Your task to perform on an android device: open sync settings in chrome Image 0: 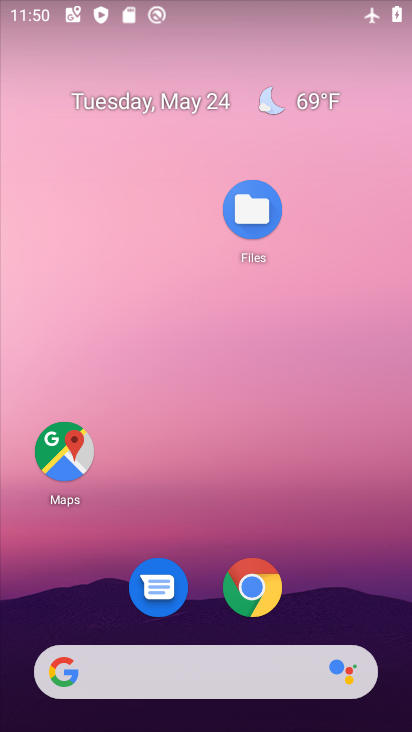
Step 0: click (259, 594)
Your task to perform on an android device: open sync settings in chrome Image 1: 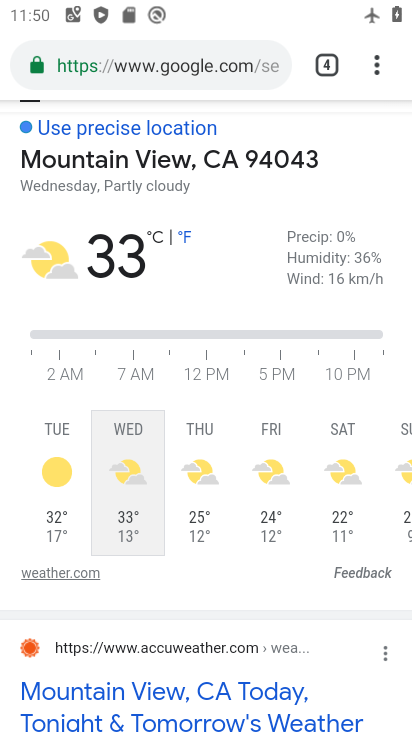
Step 1: click (379, 69)
Your task to perform on an android device: open sync settings in chrome Image 2: 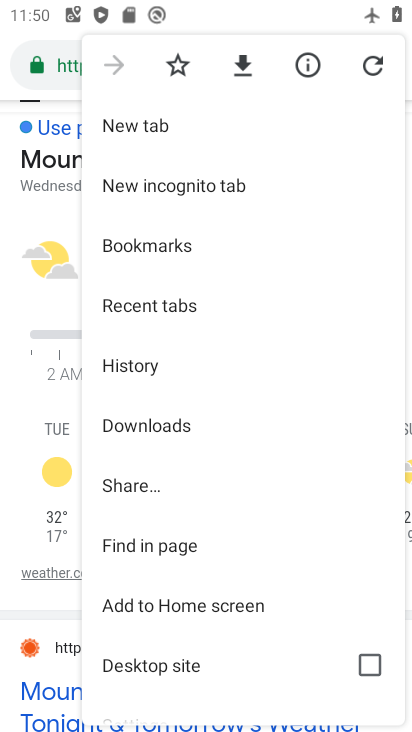
Step 2: drag from (175, 674) to (254, 313)
Your task to perform on an android device: open sync settings in chrome Image 3: 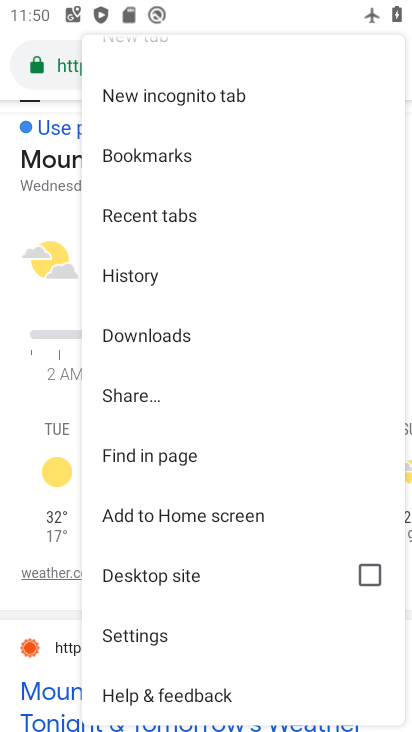
Step 3: click (134, 635)
Your task to perform on an android device: open sync settings in chrome Image 4: 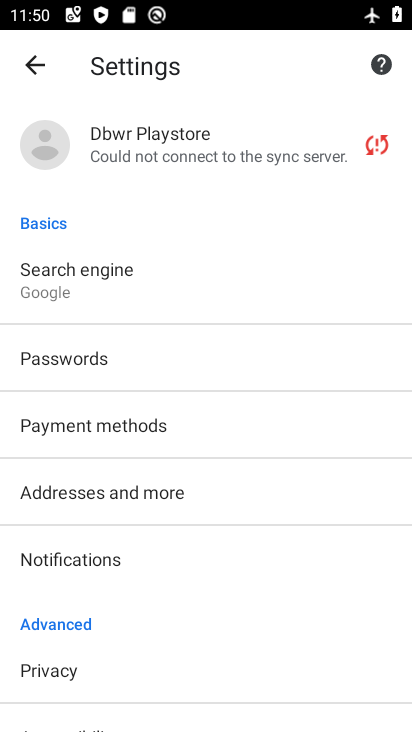
Step 4: drag from (163, 659) to (144, 389)
Your task to perform on an android device: open sync settings in chrome Image 5: 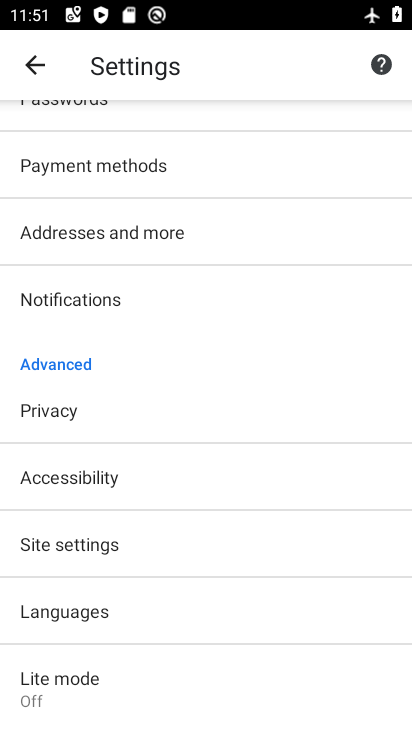
Step 5: click (92, 543)
Your task to perform on an android device: open sync settings in chrome Image 6: 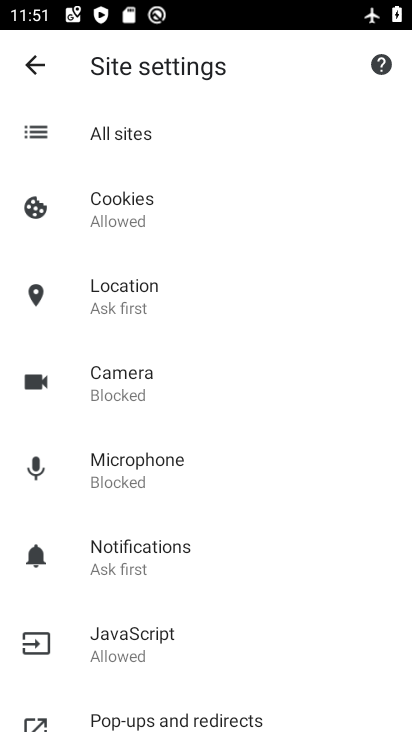
Step 6: drag from (313, 640) to (282, 216)
Your task to perform on an android device: open sync settings in chrome Image 7: 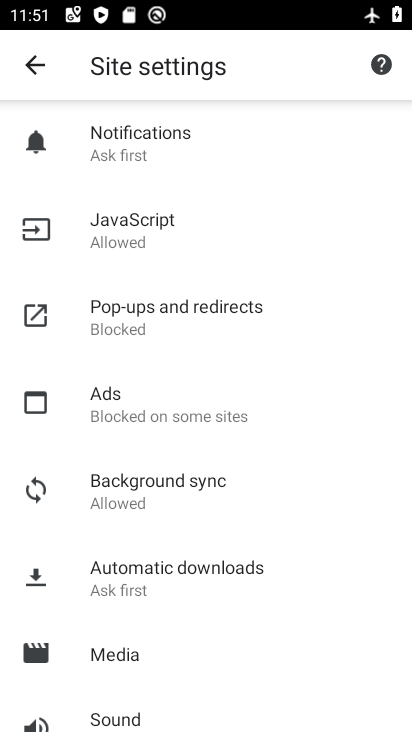
Step 7: click (140, 492)
Your task to perform on an android device: open sync settings in chrome Image 8: 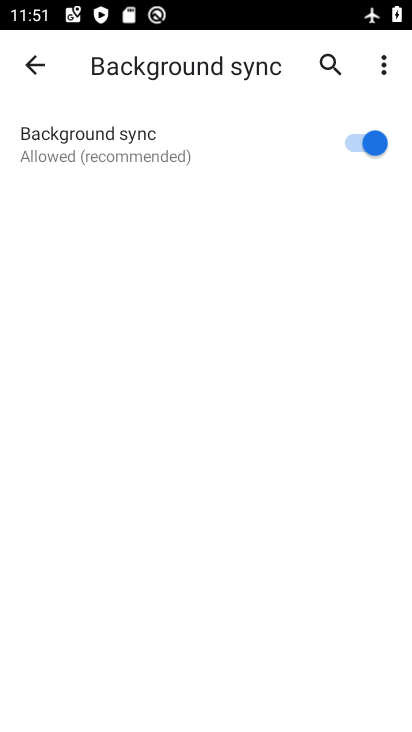
Step 8: task complete